Your task to perform on an android device: turn pop-ups on in chrome Image 0: 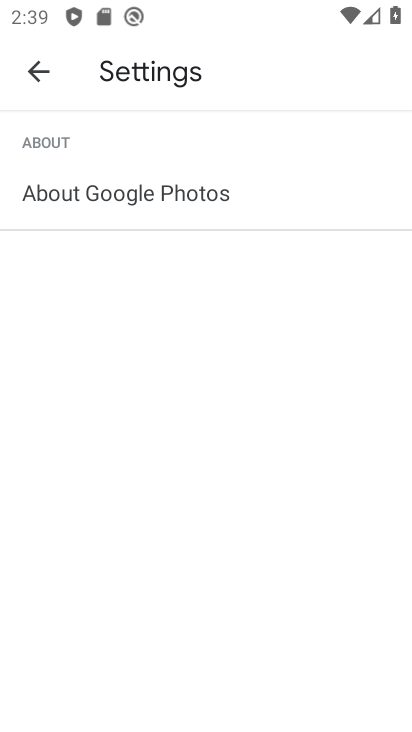
Step 0: press home button
Your task to perform on an android device: turn pop-ups on in chrome Image 1: 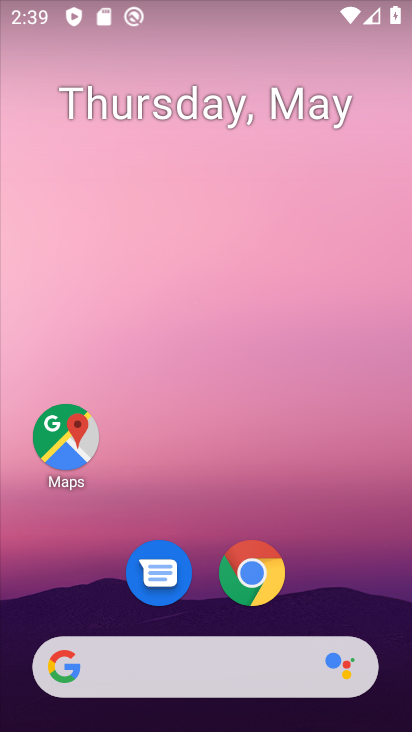
Step 1: click (247, 563)
Your task to perform on an android device: turn pop-ups on in chrome Image 2: 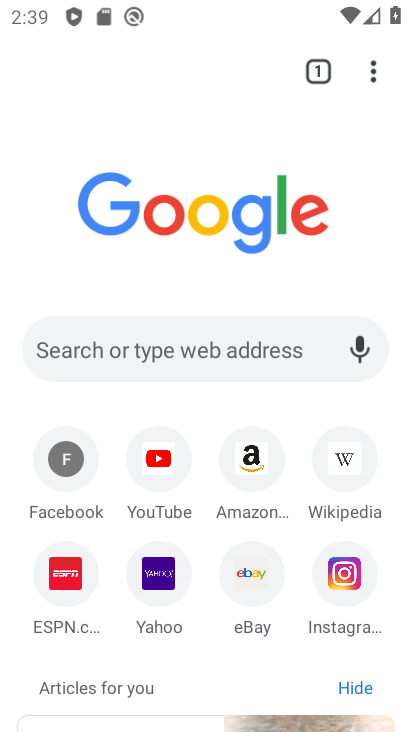
Step 2: click (376, 73)
Your task to perform on an android device: turn pop-ups on in chrome Image 3: 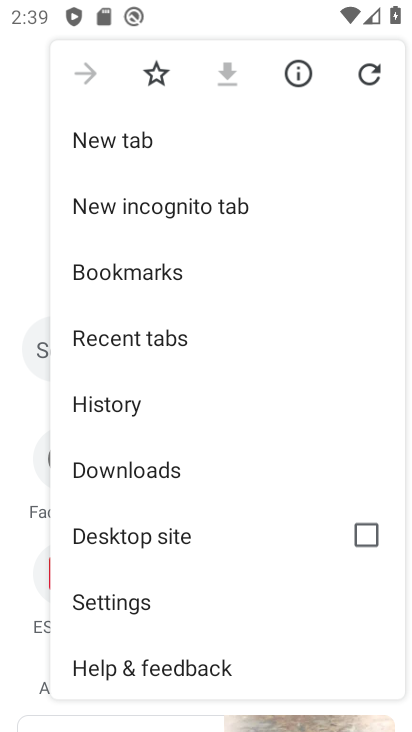
Step 3: click (135, 602)
Your task to perform on an android device: turn pop-ups on in chrome Image 4: 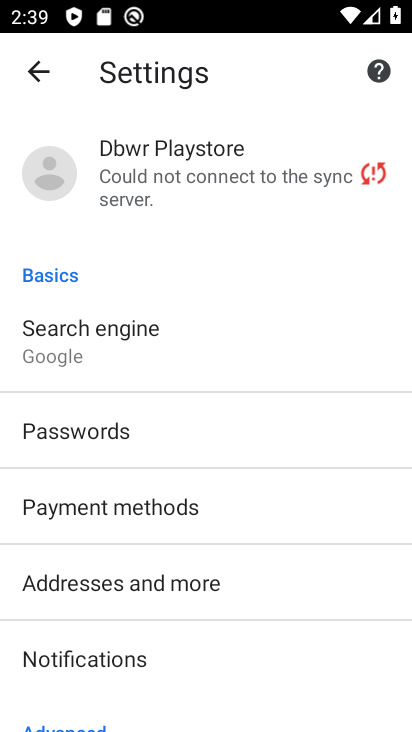
Step 4: drag from (97, 649) to (142, 247)
Your task to perform on an android device: turn pop-ups on in chrome Image 5: 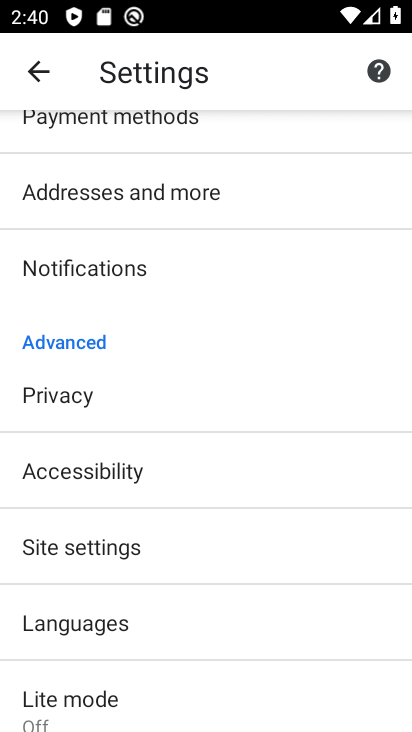
Step 5: drag from (109, 652) to (169, 311)
Your task to perform on an android device: turn pop-ups on in chrome Image 6: 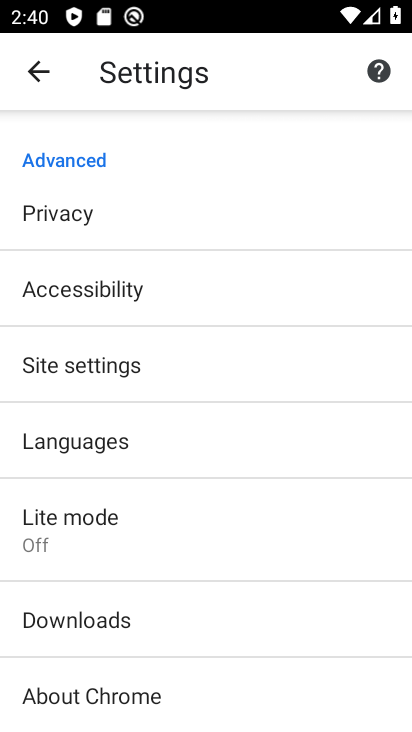
Step 6: click (112, 369)
Your task to perform on an android device: turn pop-ups on in chrome Image 7: 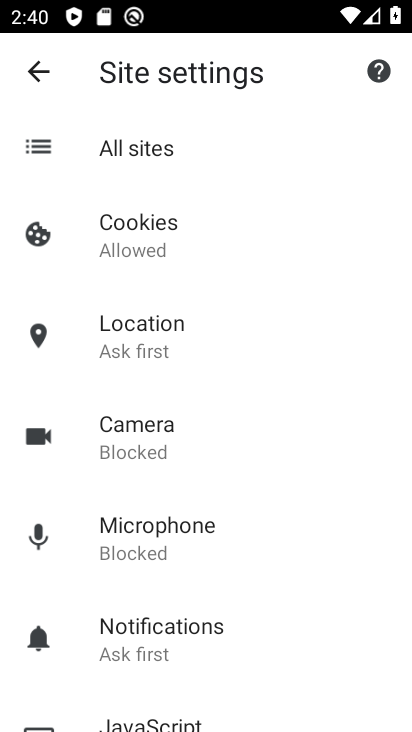
Step 7: drag from (169, 683) to (194, 261)
Your task to perform on an android device: turn pop-ups on in chrome Image 8: 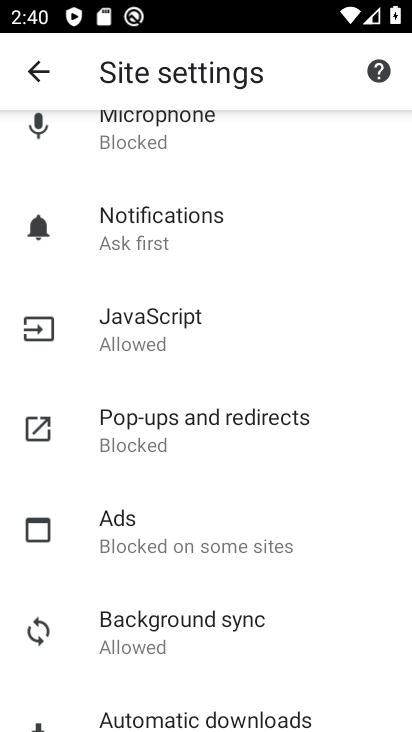
Step 8: click (149, 416)
Your task to perform on an android device: turn pop-ups on in chrome Image 9: 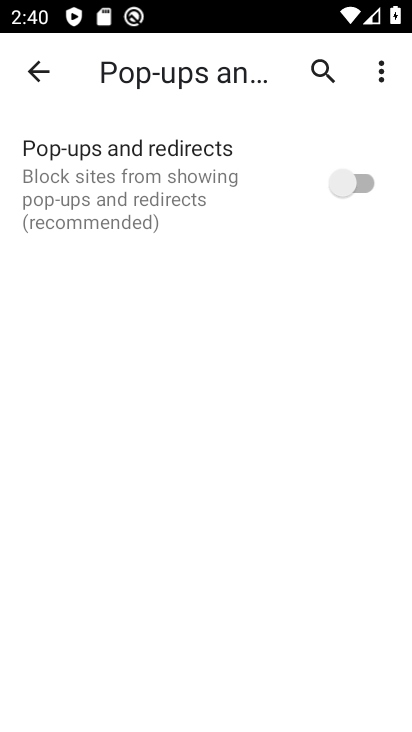
Step 9: click (360, 179)
Your task to perform on an android device: turn pop-ups on in chrome Image 10: 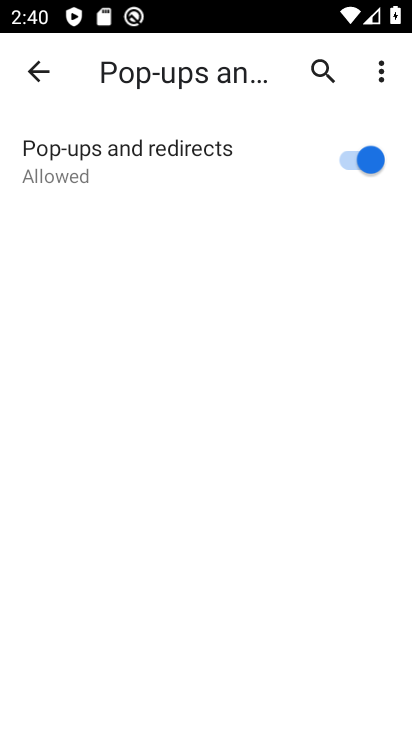
Step 10: task complete